Your task to perform on an android device: Open calendar and show me the first week of next month Image 0: 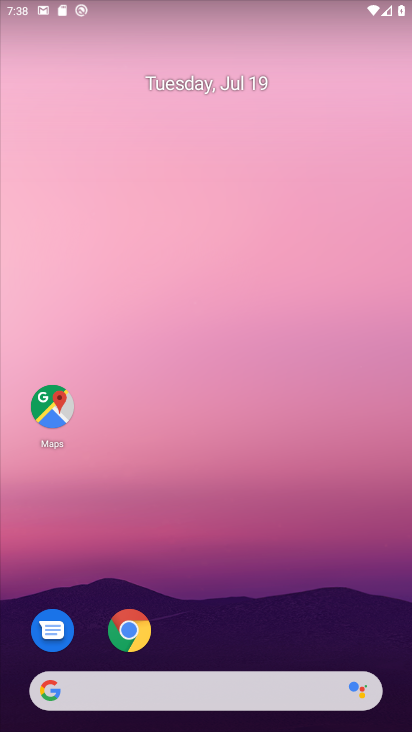
Step 0: drag from (279, 632) to (274, 88)
Your task to perform on an android device: Open calendar and show me the first week of next month Image 1: 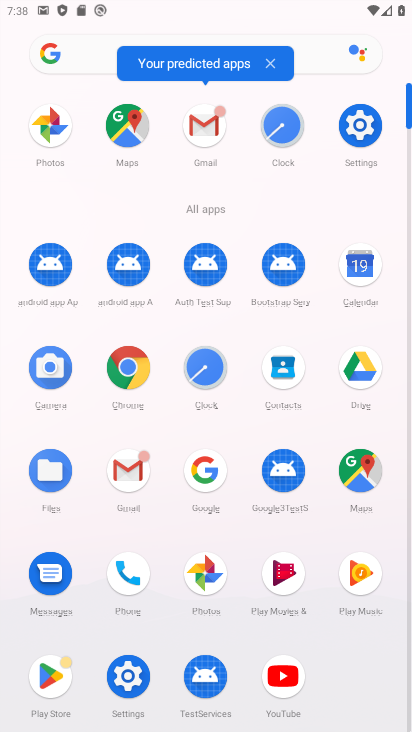
Step 1: click (362, 264)
Your task to perform on an android device: Open calendar and show me the first week of next month Image 2: 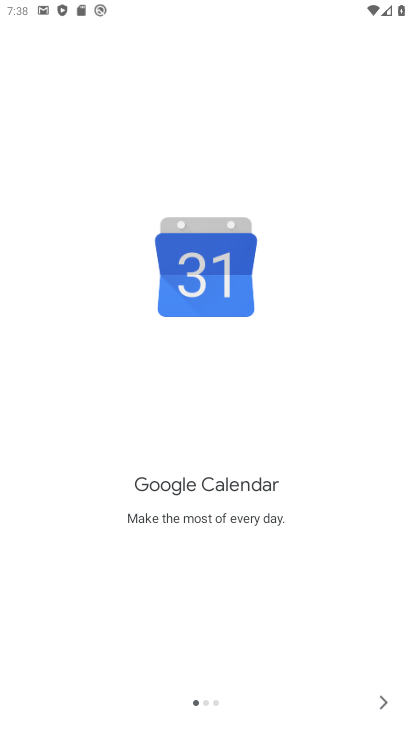
Step 2: click (388, 705)
Your task to perform on an android device: Open calendar and show me the first week of next month Image 3: 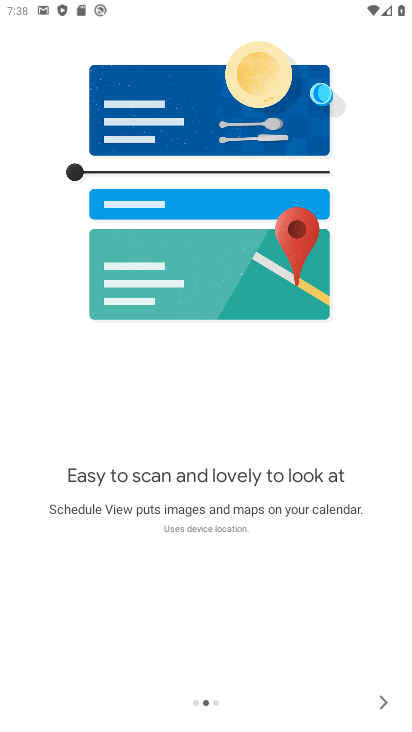
Step 3: click (388, 703)
Your task to perform on an android device: Open calendar and show me the first week of next month Image 4: 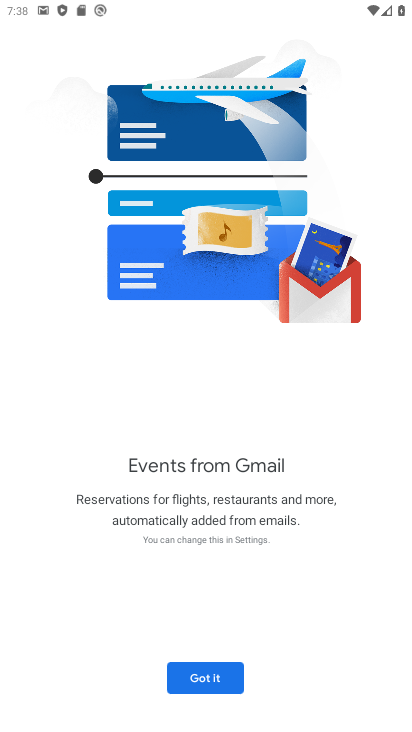
Step 4: click (209, 671)
Your task to perform on an android device: Open calendar and show me the first week of next month Image 5: 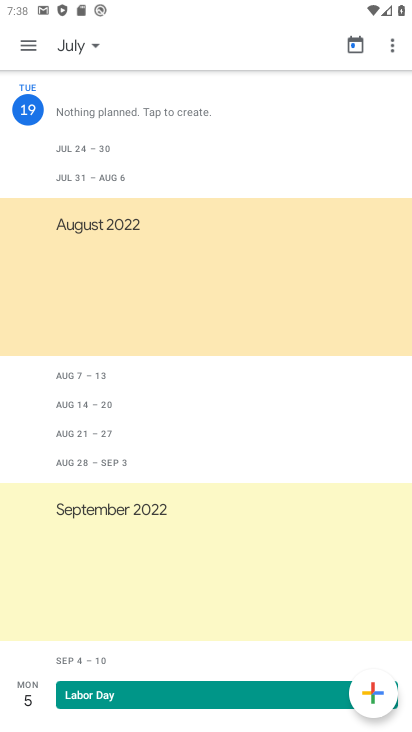
Step 5: click (83, 48)
Your task to perform on an android device: Open calendar and show me the first week of next month Image 6: 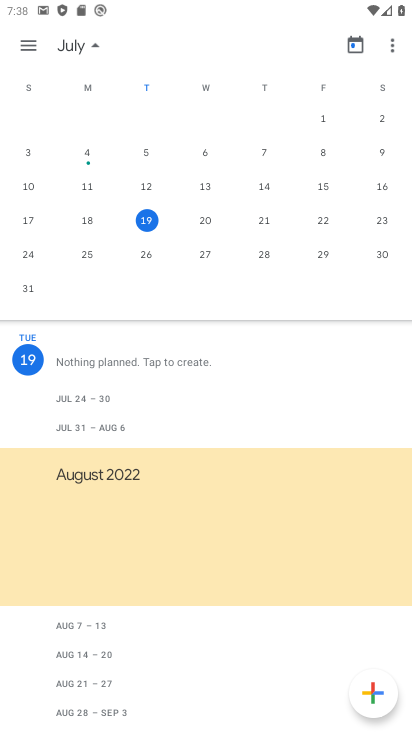
Step 6: drag from (380, 193) to (88, 183)
Your task to perform on an android device: Open calendar and show me the first week of next month Image 7: 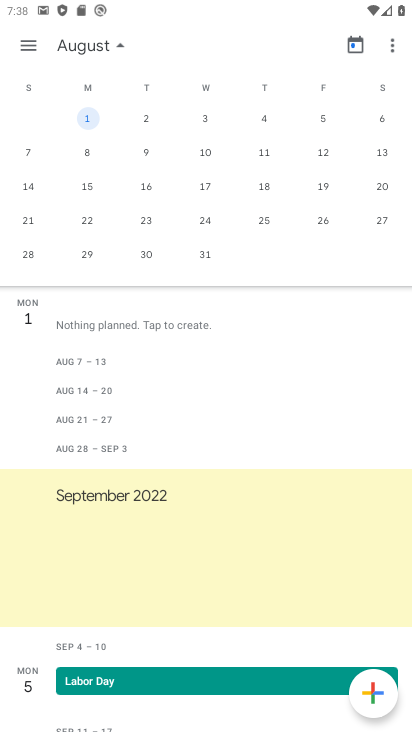
Step 7: click (33, 36)
Your task to perform on an android device: Open calendar and show me the first week of next month Image 8: 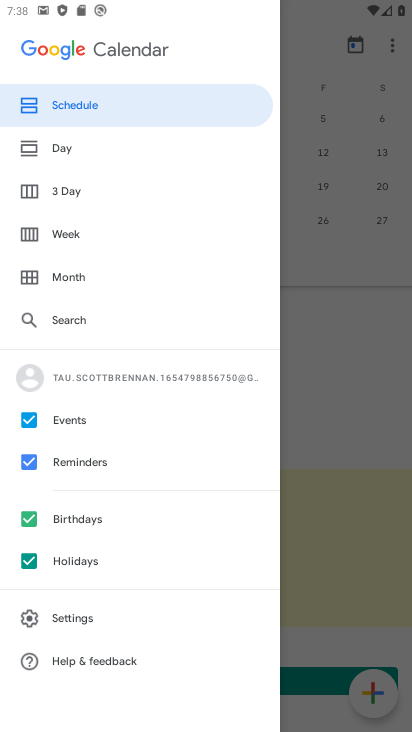
Step 8: click (73, 227)
Your task to perform on an android device: Open calendar and show me the first week of next month Image 9: 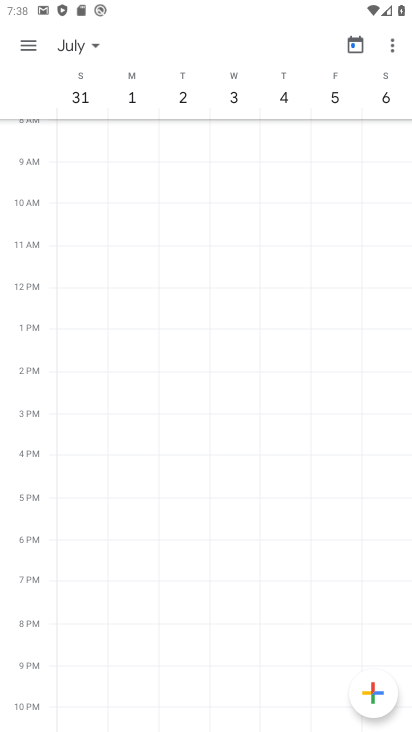
Step 9: task complete